Your task to perform on an android device: see creations saved in the google photos Image 0: 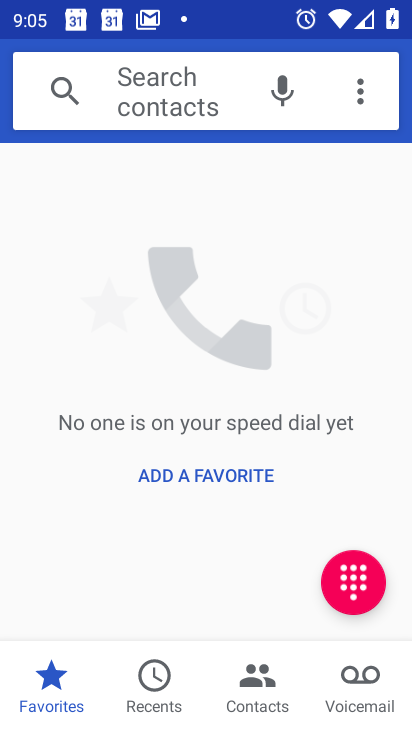
Step 0: press home button
Your task to perform on an android device: see creations saved in the google photos Image 1: 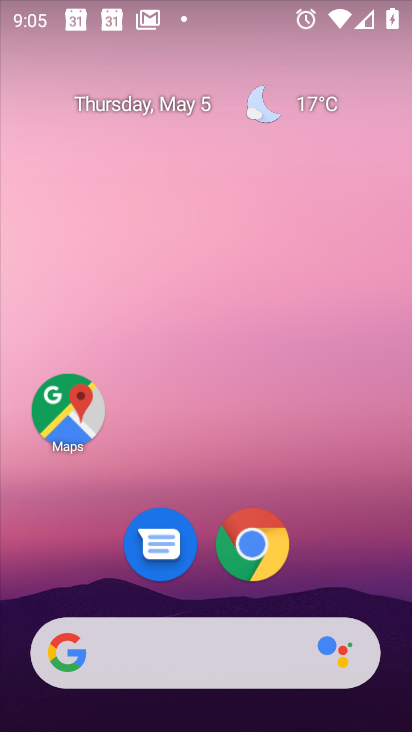
Step 1: drag from (363, 543) to (327, 133)
Your task to perform on an android device: see creations saved in the google photos Image 2: 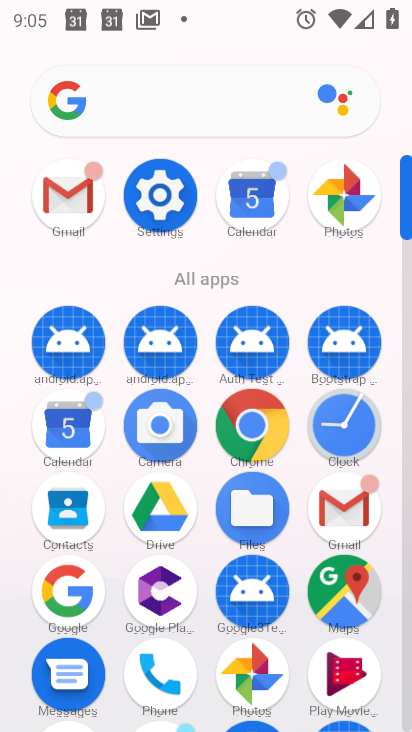
Step 2: click (269, 685)
Your task to perform on an android device: see creations saved in the google photos Image 3: 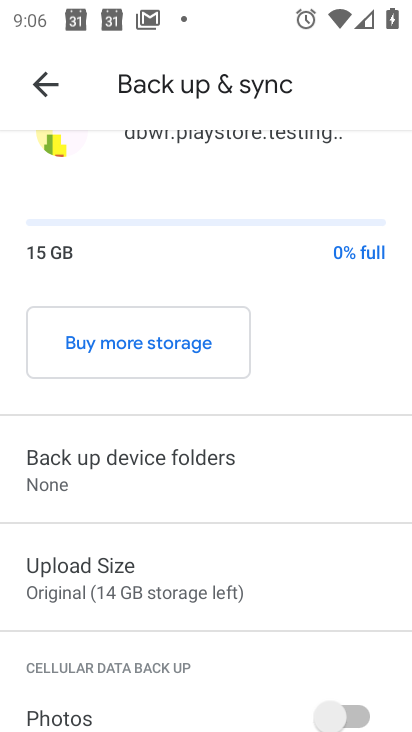
Step 3: click (33, 82)
Your task to perform on an android device: see creations saved in the google photos Image 4: 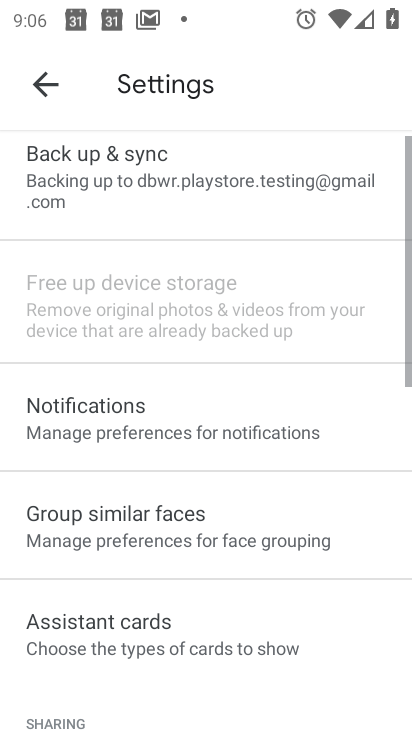
Step 4: click (33, 82)
Your task to perform on an android device: see creations saved in the google photos Image 5: 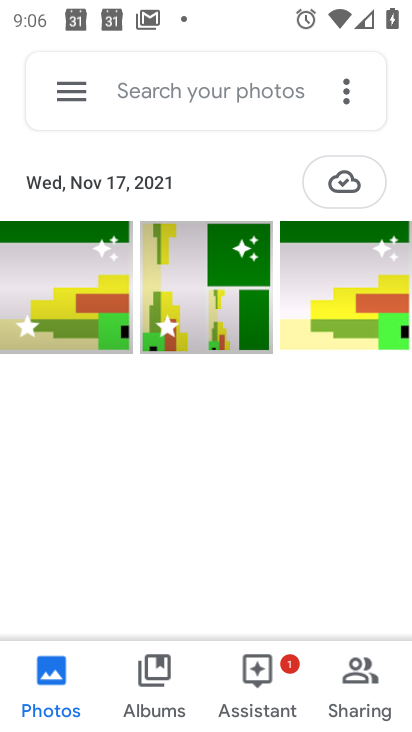
Step 5: click (155, 686)
Your task to perform on an android device: see creations saved in the google photos Image 6: 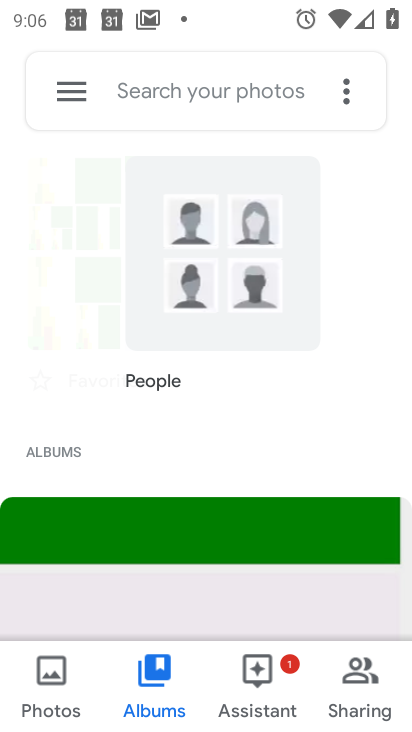
Step 6: task complete